Your task to perform on an android device: toggle data saver in the chrome app Image 0: 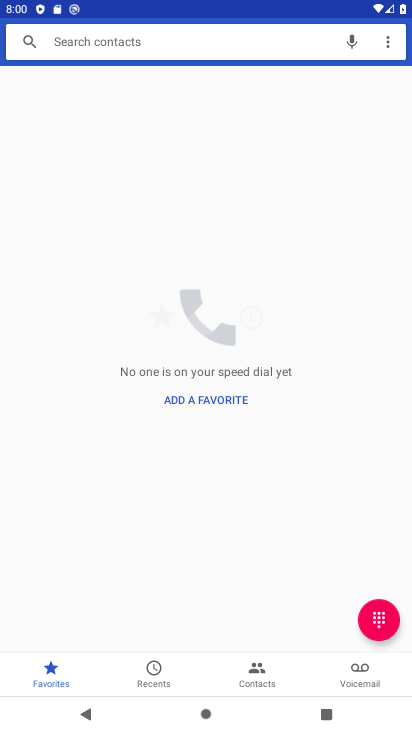
Step 0: press home button
Your task to perform on an android device: toggle data saver in the chrome app Image 1: 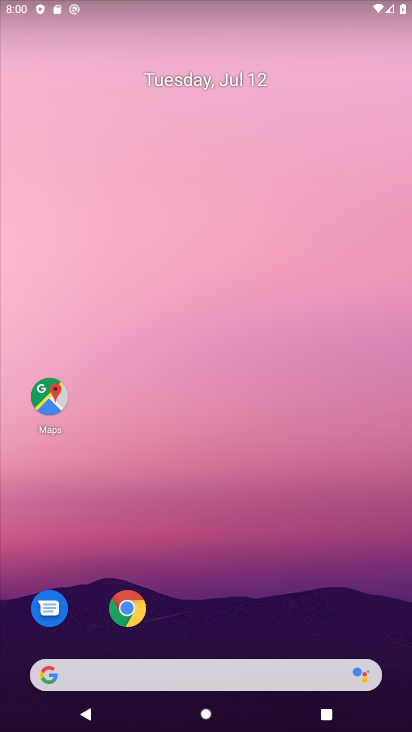
Step 1: click (132, 614)
Your task to perform on an android device: toggle data saver in the chrome app Image 2: 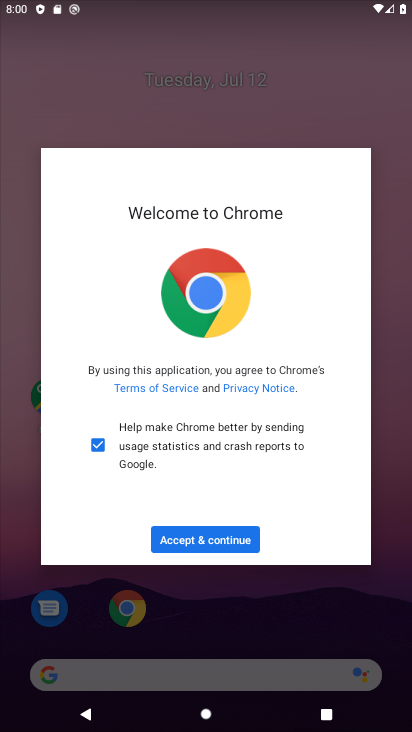
Step 2: click (218, 544)
Your task to perform on an android device: toggle data saver in the chrome app Image 3: 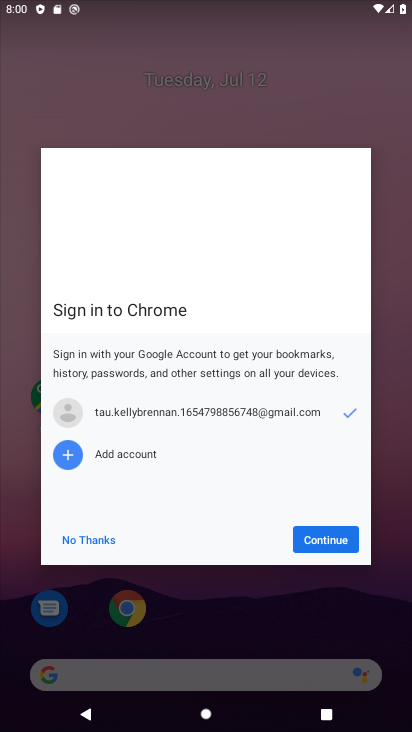
Step 3: click (347, 535)
Your task to perform on an android device: toggle data saver in the chrome app Image 4: 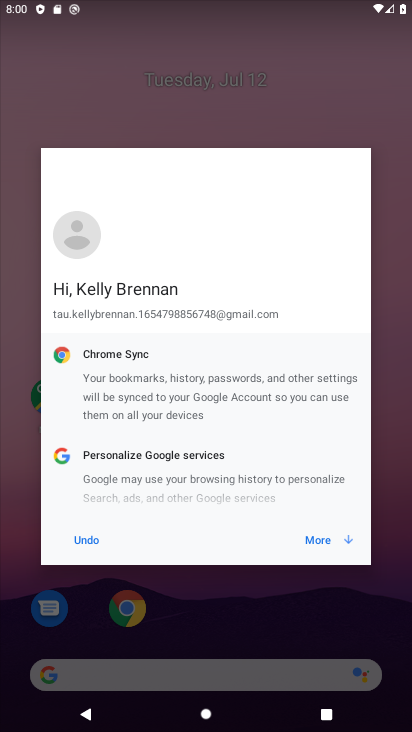
Step 4: click (321, 539)
Your task to perform on an android device: toggle data saver in the chrome app Image 5: 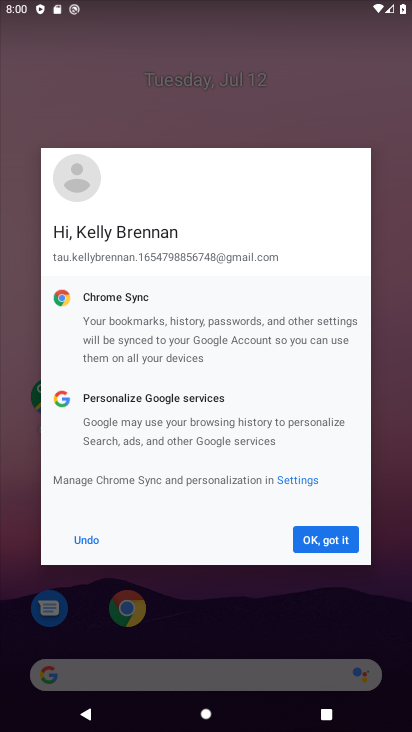
Step 5: click (321, 539)
Your task to perform on an android device: toggle data saver in the chrome app Image 6: 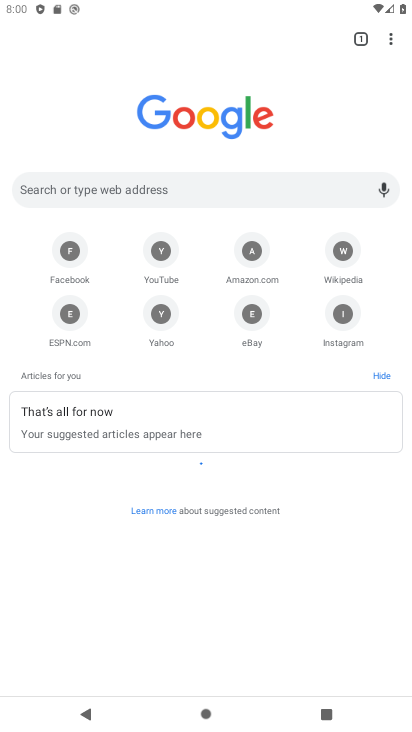
Step 6: click (398, 30)
Your task to perform on an android device: toggle data saver in the chrome app Image 7: 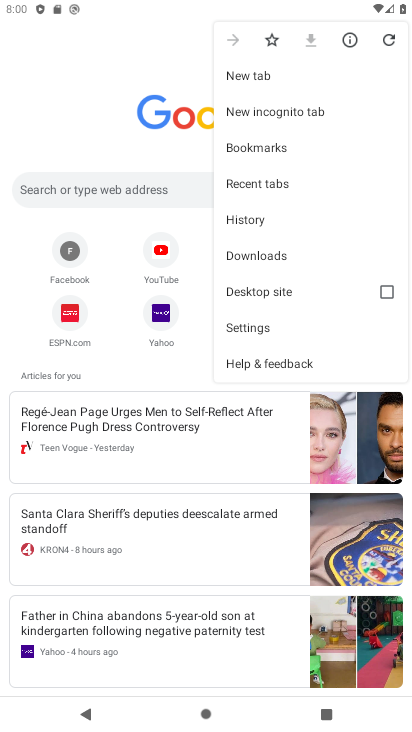
Step 7: click (270, 329)
Your task to perform on an android device: toggle data saver in the chrome app Image 8: 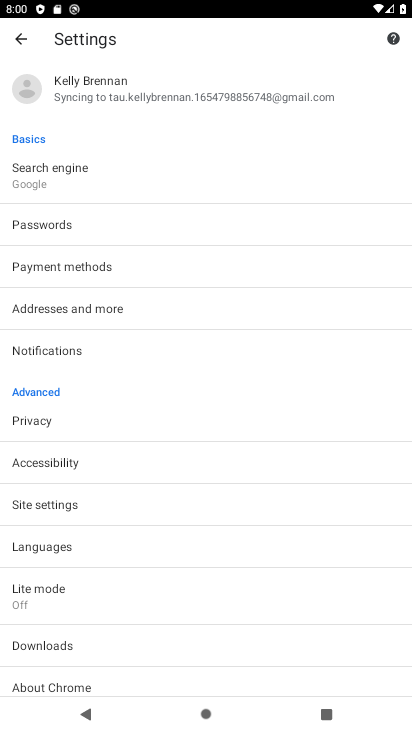
Step 8: click (49, 590)
Your task to perform on an android device: toggle data saver in the chrome app Image 9: 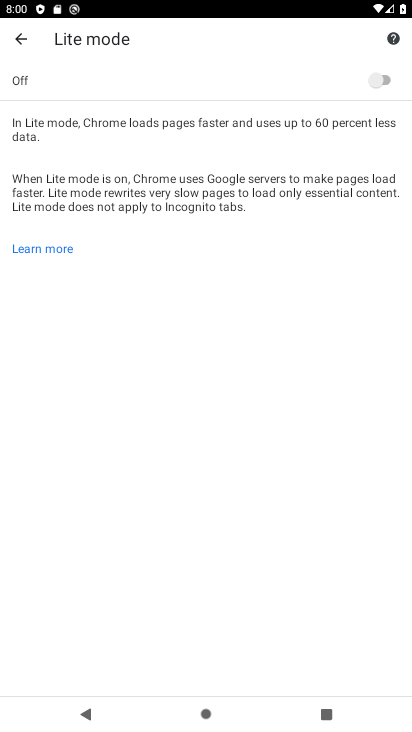
Step 9: click (386, 72)
Your task to perform on an android device: toggle data saver in the chrome app Image 10: 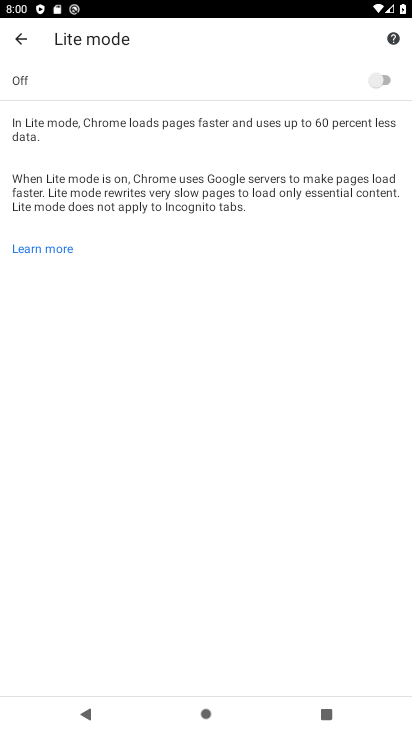
Step 10: click (386, 72)
Your task to perform on an android device: toggle data saver in the chrome app Image 11: 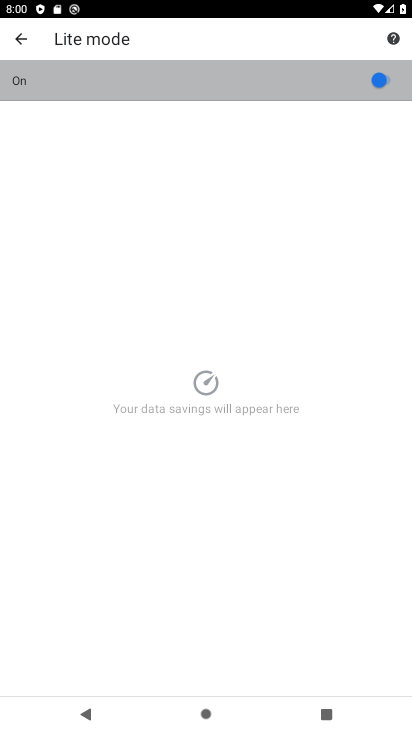
Step 11: click (386, 72)
Your task to perform on an android device: toggle data saver in the chrome app Image 12: 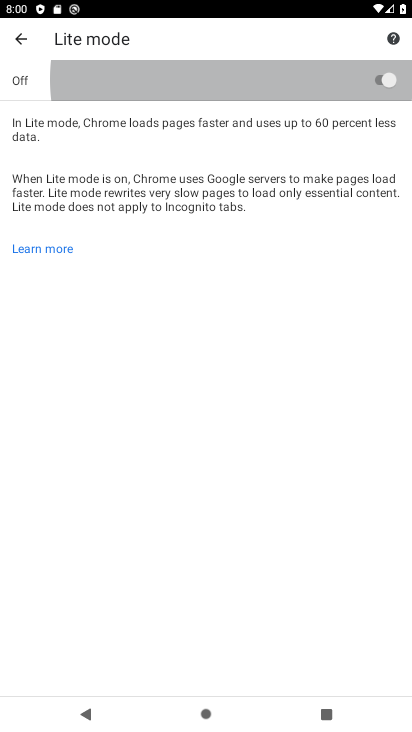
Step 12: click (386, 72)
Your task to perform on an android device: toggle data saver in the chrome app Image 13: 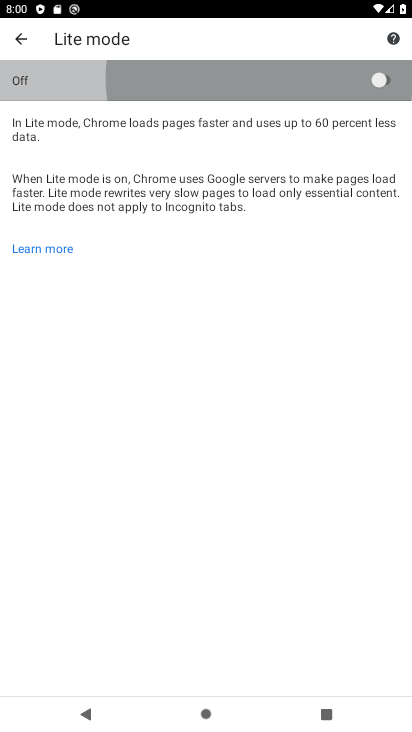
Step 13: click (386, 72)
Your task to perform on an android device: toggle data saver in the chrome app Image 14: 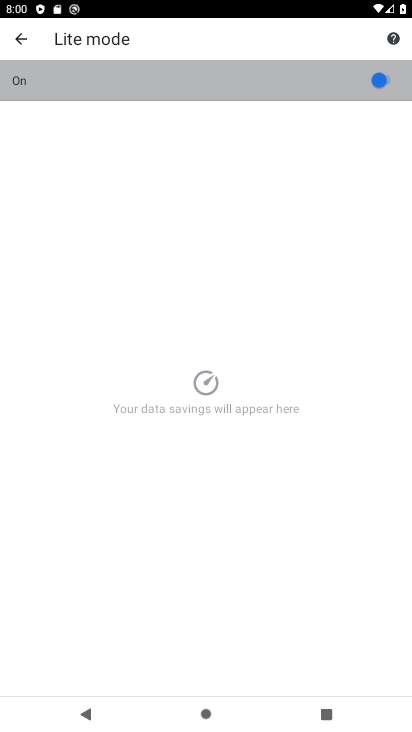
Step 14: click (386, 72)
Your task to perform on an android device: toggle data saver in the chrome app Image 15: 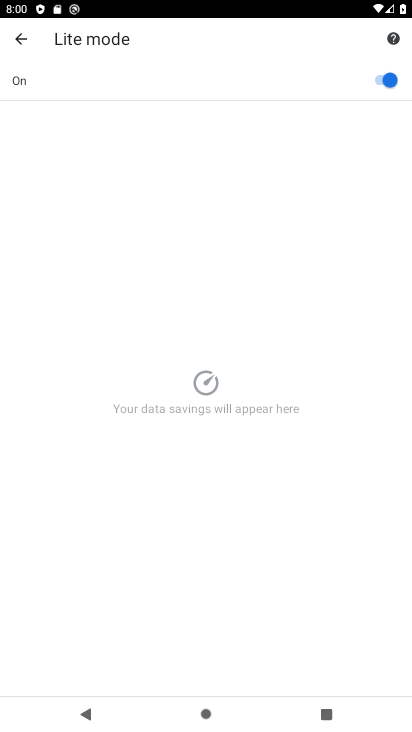
Step 15: task complete